Your task to perform on an android device: Toggle the flashlight Image 0: 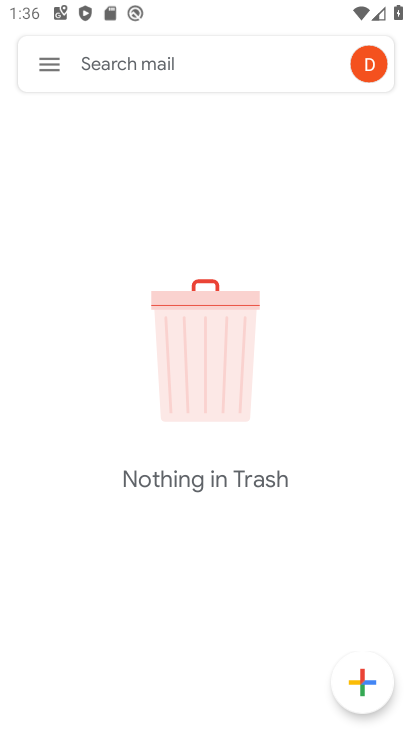
Step 0: press home button
Your task to perform on an android device: Toggle the flashlight Image 1: 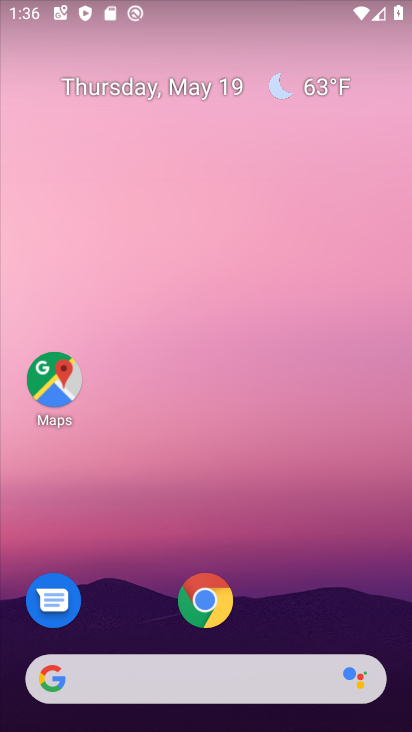
Step 1: drag from (355, 639) to (341, 533)
Your task to perform on an android device: Toggle the flashlight Image 2: 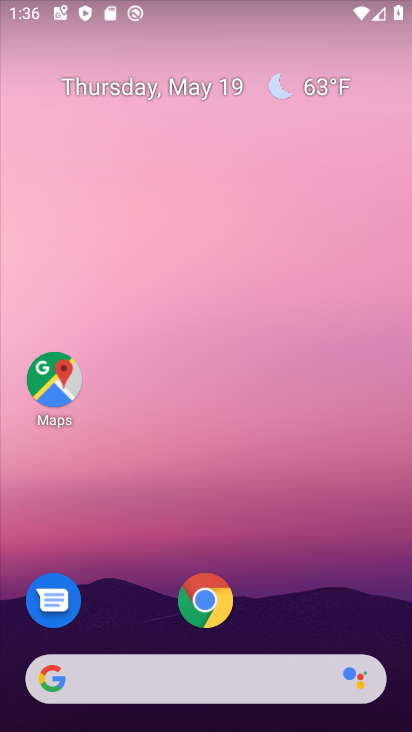
Step 2: drag from (361, 3) to (374, 299)
Your task to perform on an android device: Toggle the flashlight Image 3: 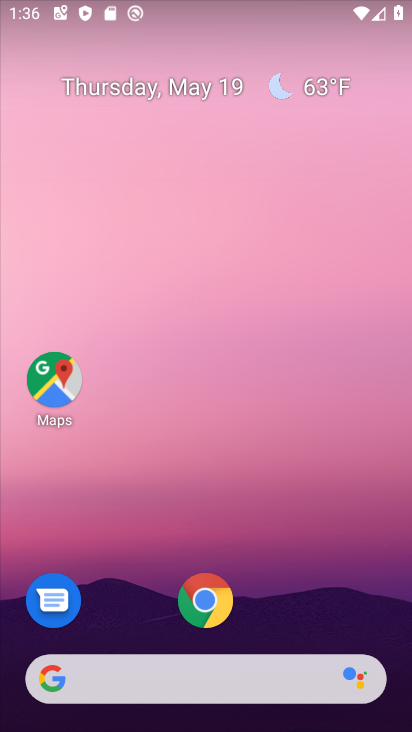
Step 3: drag from (332, 63) to (320, 526)
Your task to perform on an android device: Toggle the flashlight Image 4: 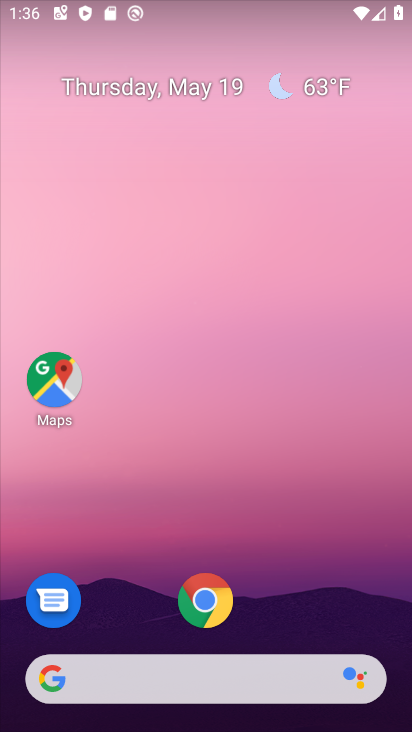
Step 4: drag from (352, 0) to (329, 460)
Your task to perform on an android device: Toggle the flashlight Image 5: 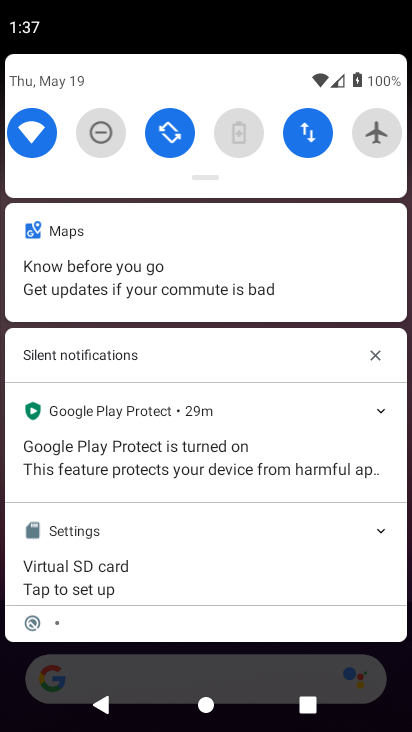
Step 5: drag from (337, 164) to (321, 723)
Your task to perform on an android device: Toggle the flashlight Image 6: 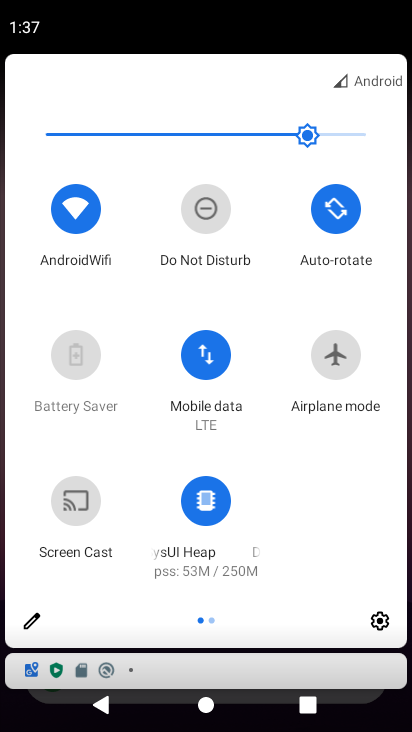
Step 6: click (29, 633)
Your task to perform on an android device: Toggle the flashlight Image 7: 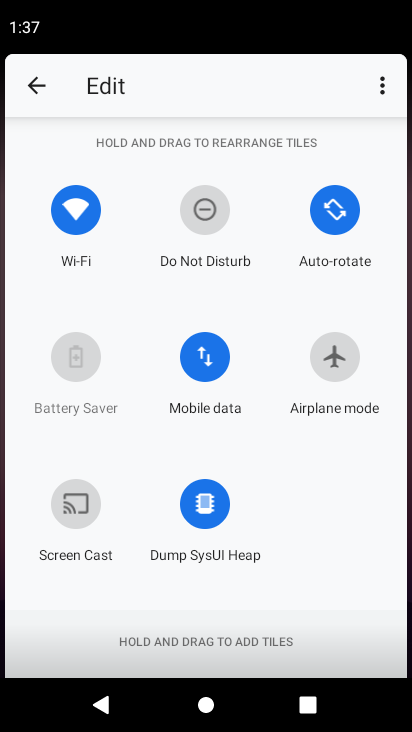
Step 7: task complete